Your task to perform on an android device: Open ESPN.com Image 0: 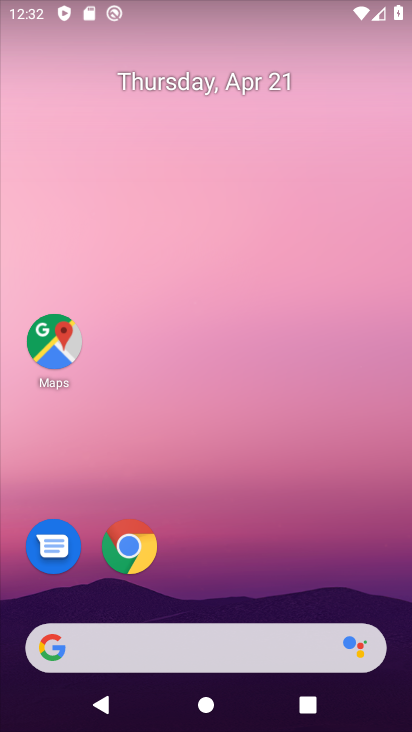
Step 0: click (127, 567)
Your task to perform on an android device: Open ESPN.com Image 1: 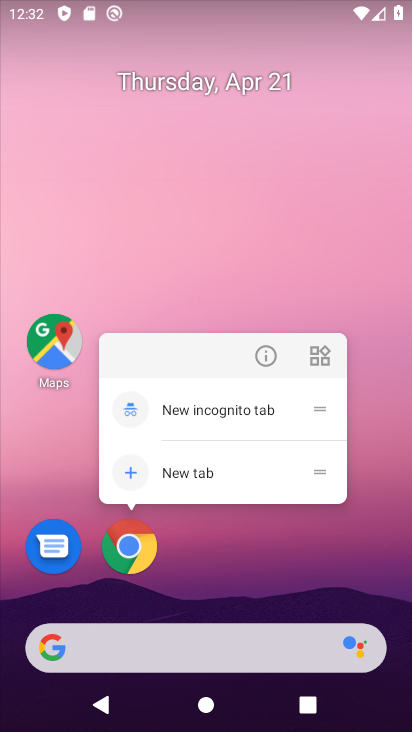
Step 1: click (145, 558)
Your task to perform on an android device: Open ESPN.com Image 2: 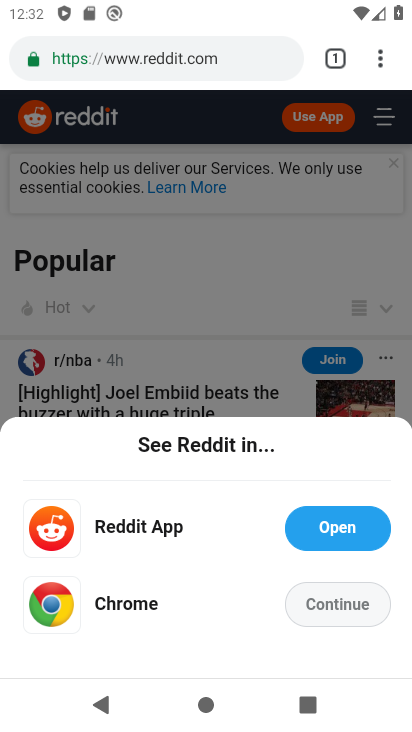
Step 2: click (152, 61)
Your task to perform on an android device: Open ESPN.com Image 3: 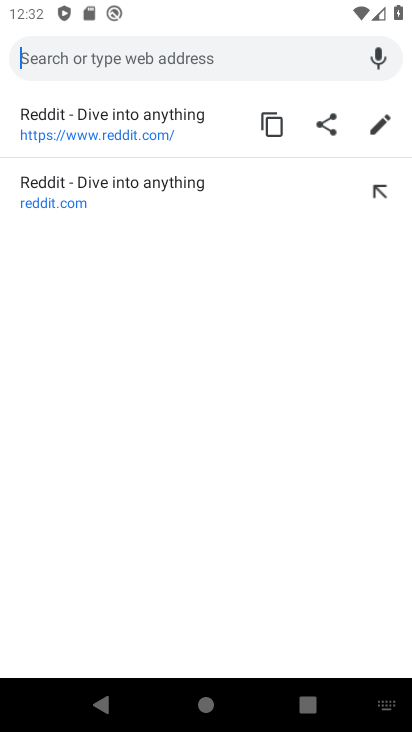
Step 3: type "ESPN.com"
Your task to perform on an android device: Open ESPN.com Image 4: 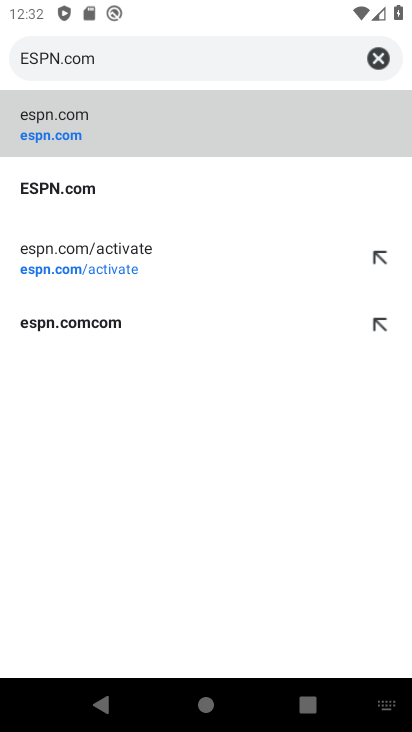
Step 4: click (80, 143)
Your task to perform on an android device: Open ESPN.com Image 5: 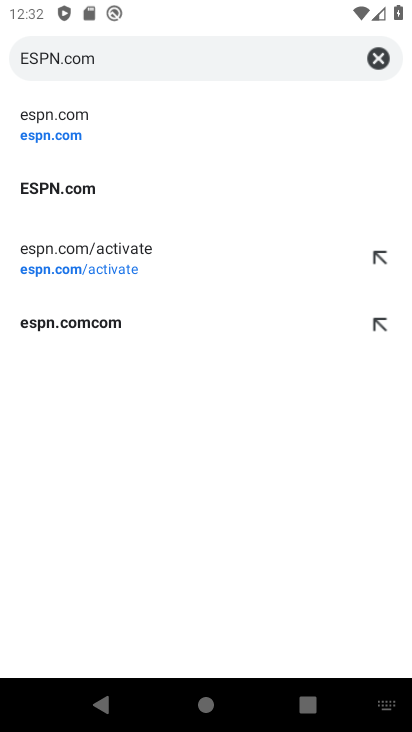
Step 5: click (57, 137)
Your task to perform on an android device: Open ESPN.com Image 6: 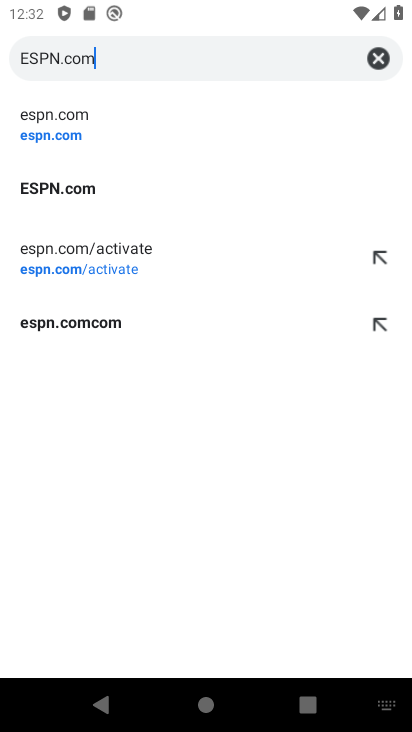
Step 6: click (35, 132)
Your task to perform on an android device: Open ESPN.com Image 7: 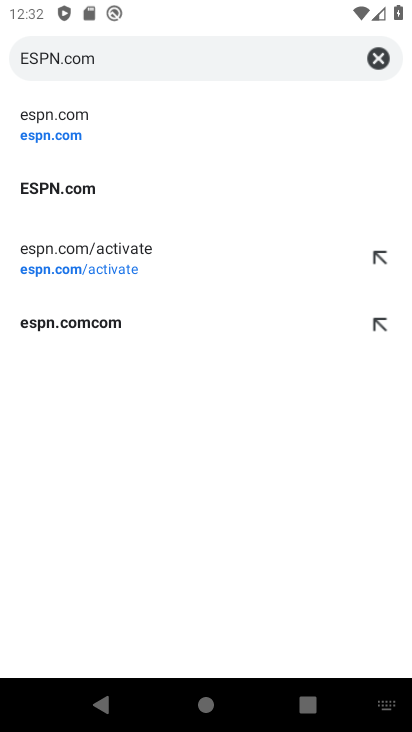
Step 7: click (28, 140)
Your task to perform on an android device: Open ESPN.com Image 8: 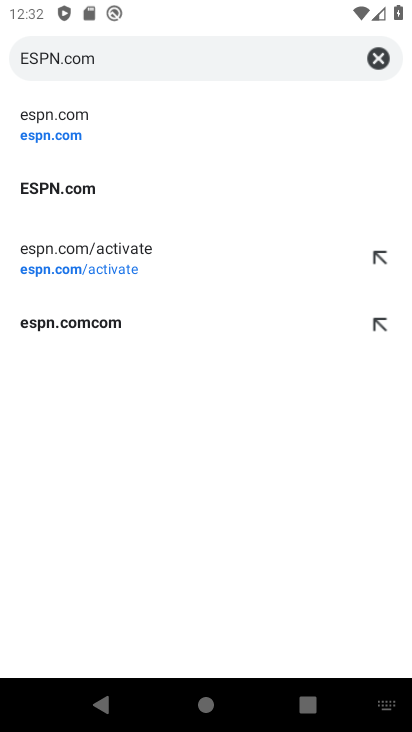
Step 8: click (42, 141)
Your task to perform on an android device: Open ESPN.com Image 9: 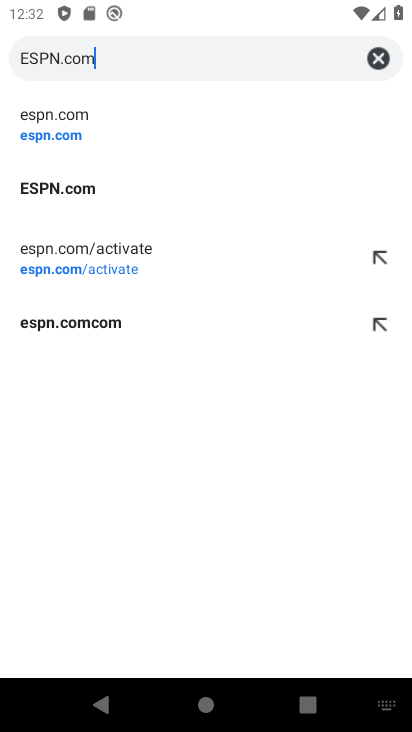
Step 9: click (33, 138)
Your task to perform on an android device: Open ESPN.com Image 10: 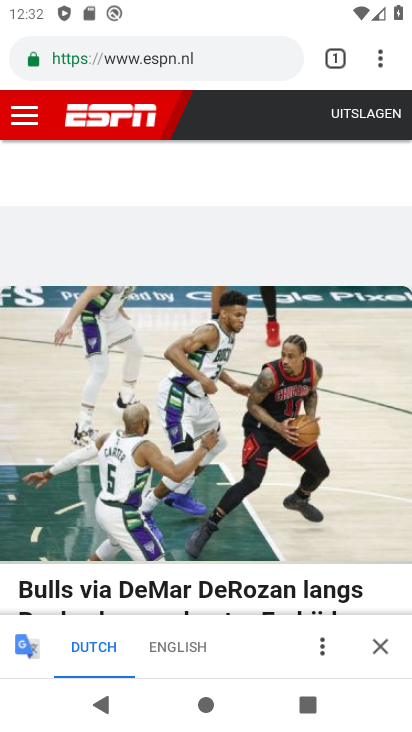
Step 10: task complete